Your task to perform on an android device: toggle javascript in the chrome app Image 0: 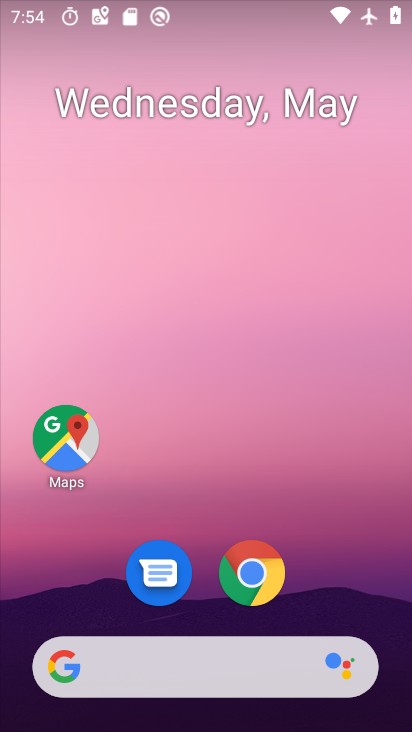
Step 0: click (239, 574)
Your task to perform on an android device: toggle javascript in the chrome app Image 1: 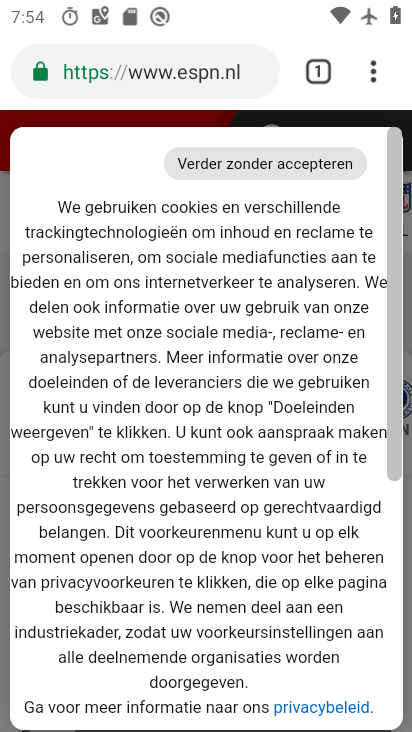
Step 1: click (365, 82)
Your task to perform on an android device: toggle javascript in the chrome app Image 2: 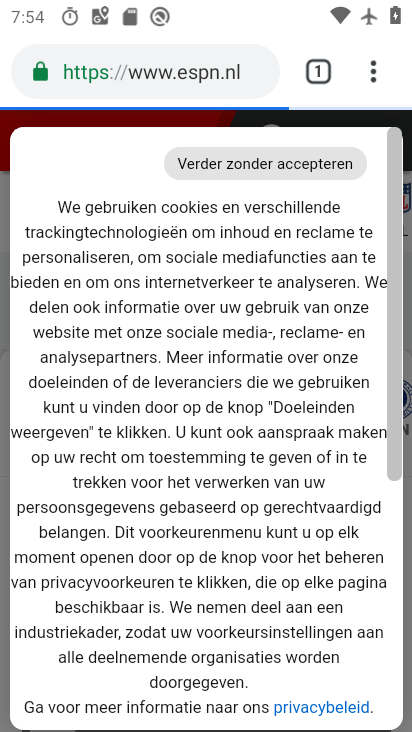
Step 2: click (404, 80)
Your task to perform on an android device: toggle javascript in the chrome app Image 3: 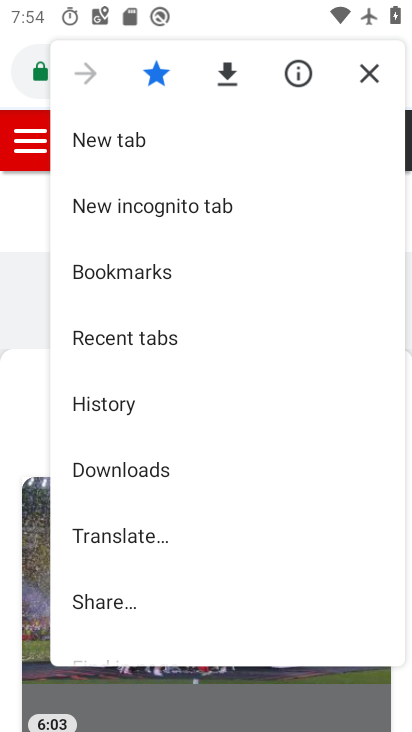
Step 3: drag from (242, 596) to (300, 238)
Your task to perform on an android device: toggle javascript in the chrome app Image 4: 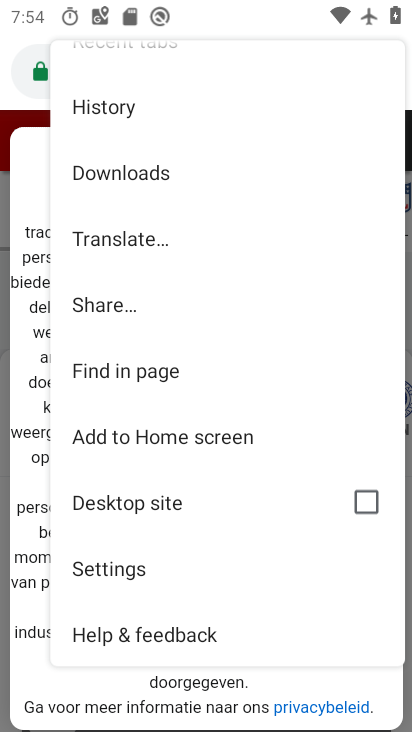
Step 4: click (157, 577)
Your task to perform on an android device: toggle javascript in the chrome app Image 5: 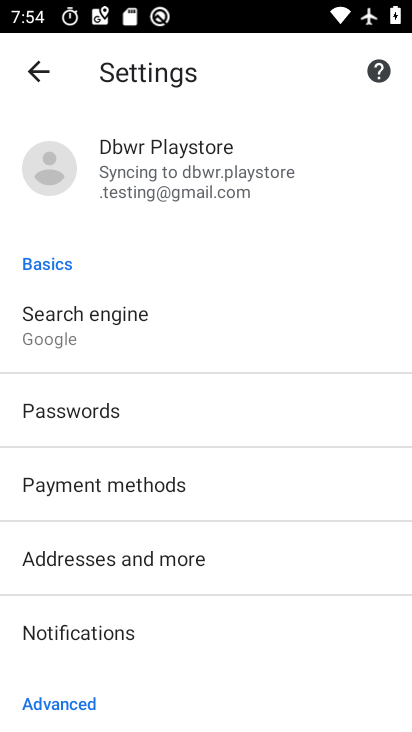
Step 5: drag from (189, 642) to (150, 409)
Your task to perform on an android device: toggle javascript in the chrome app Image 6: 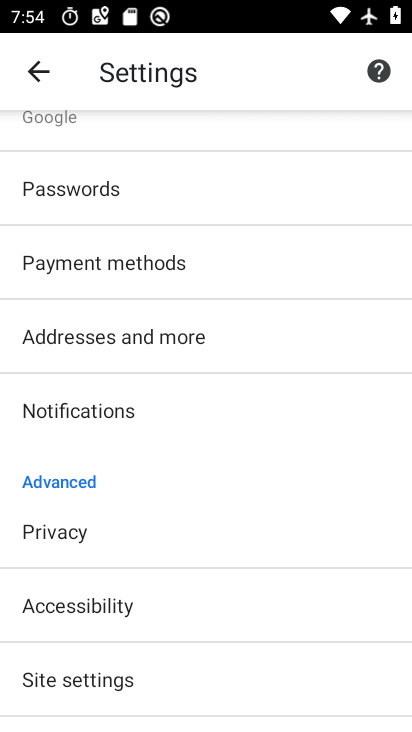
Step 6: click (149, 687)
Your task to perform on an android device: toggle javascript in the chrome app Image 7: 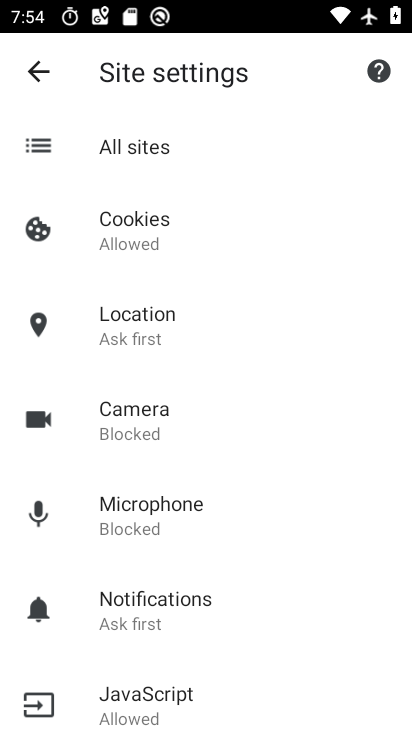
Step 7: drag from (161, 697) to (154, 611)
Your task to perform on an android device: toggle javascript in the chrome app Image 8: 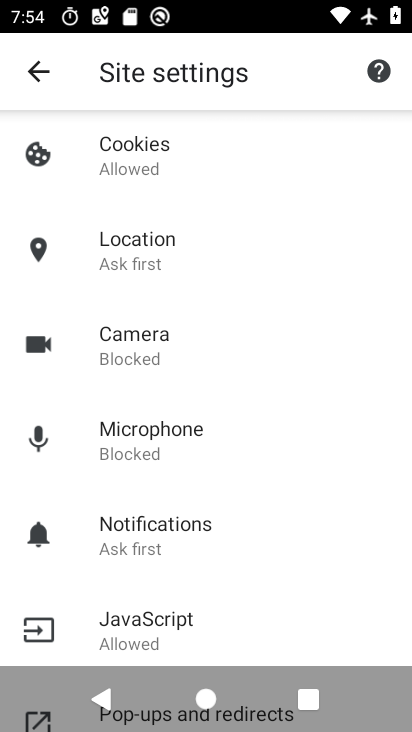
Step 8: click (170, 632)
Your task to perform on an android device: toggle javascript in the chrome app Image 9: 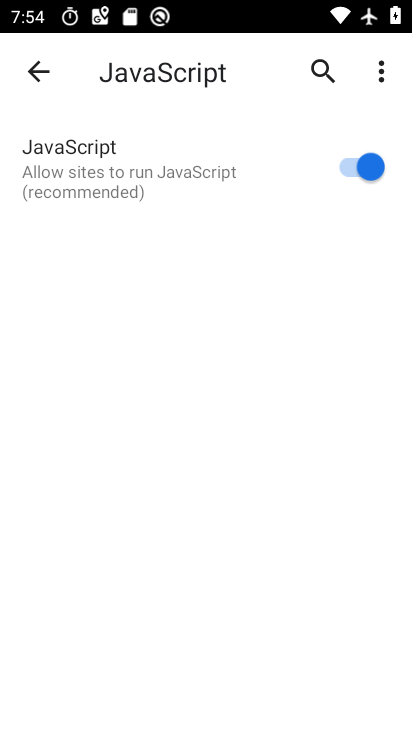
Step 9: click (354, 153)
Your task to perform on an android device: toggle javascript in the chrome app Image 10: 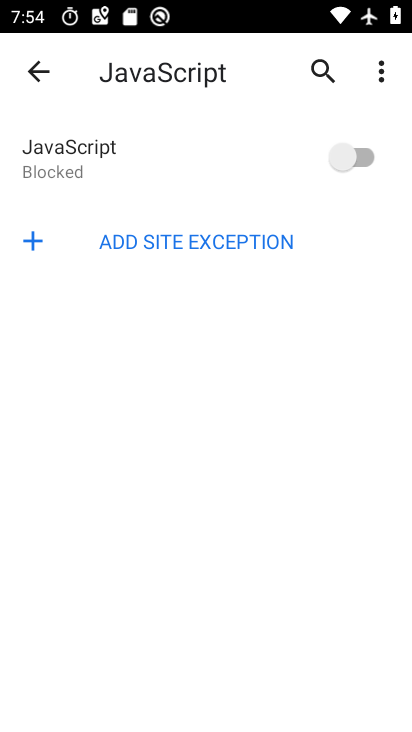
Step 10: task complete